Your task to perform on an android device: check android version Image 0: 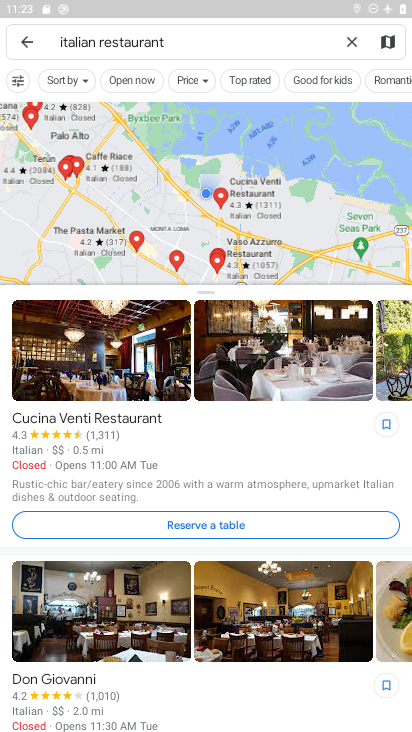
Step 0: press home button
Your task to perform on an android device: check android version Image 1: 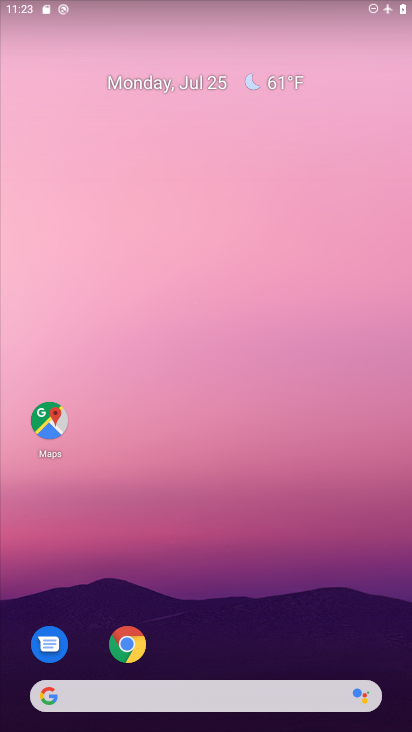
Step 1: drag from (267, 659) to (273, 219)
Your task to perform on an android device: check android version Image 2: 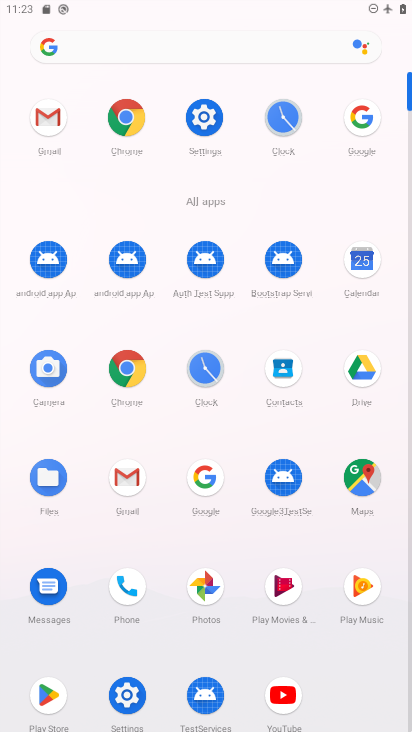
Step 2: click (203, 108)
Your task to perform on an android device: check android version Image 3: 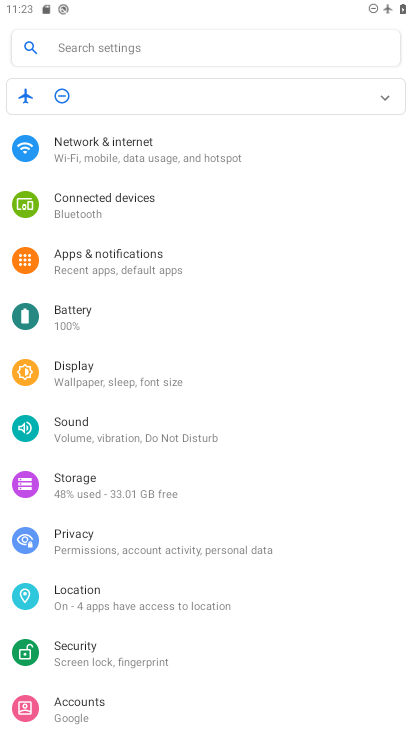
Step 3: drag from (257, 628) to (238, 32)
Your task to perform on an android device: check android version Image 4: 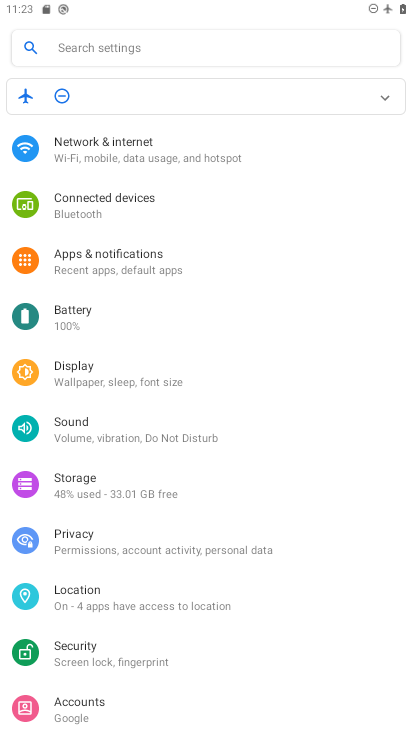
Step 4: drag from (128, 632) to (157, 136)
Your task to perform on an android device: check android version Image 5: 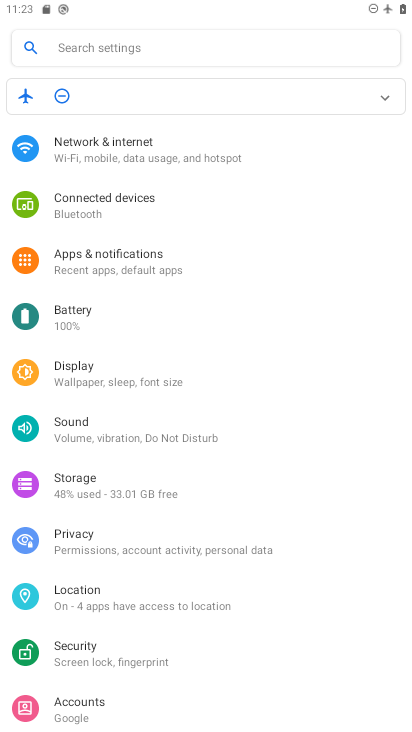
Step 5: drag from (206, 706) to (244, 120)
Your task to perform on an android device: check android version Image 6: 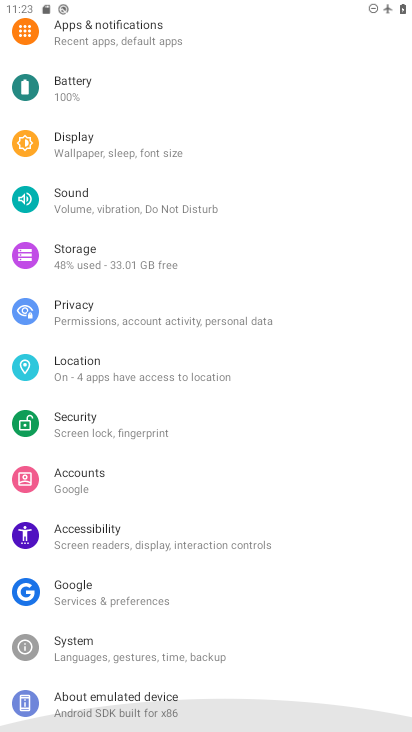
Step 6: drag from (227, 525) to (227, 309)
Your task to perform on an android device: check android version Image 7: 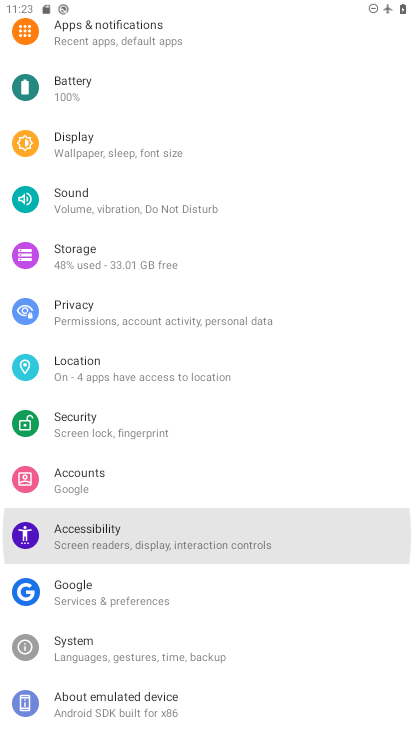
Step 7: drag from (217, 514) to (256, 250)
Your task to perform on an android device: check android version Image 8: 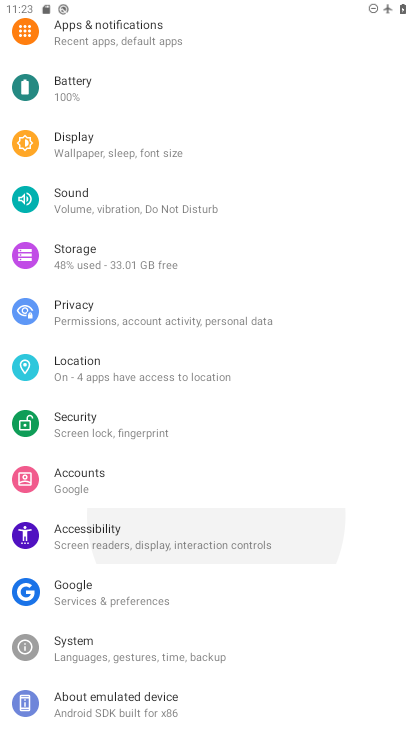
Step 8: drag from (174, 500) to (192, 209)
Your task to perform on an android device: check android version Image 9: 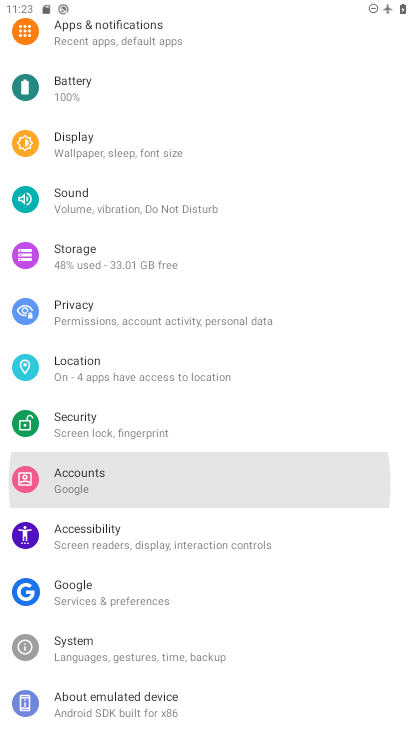
Step 9: drag from (119, 665) to (161, 343)
Your task to perform on an android device: check android version Image 10: 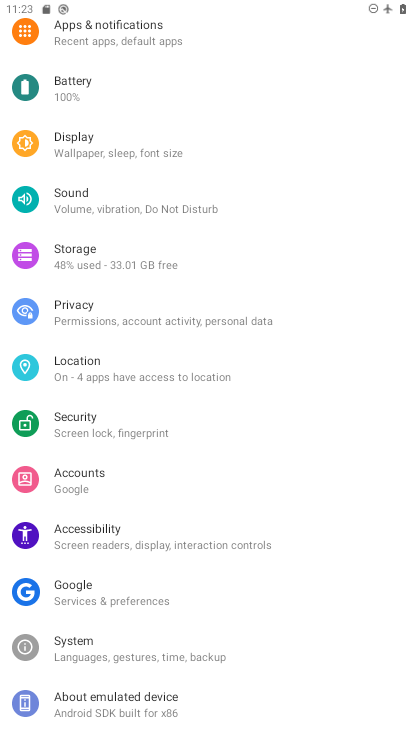
Step 10: click (153, 695)
Your task to perform on an android device: check android version Image 11: 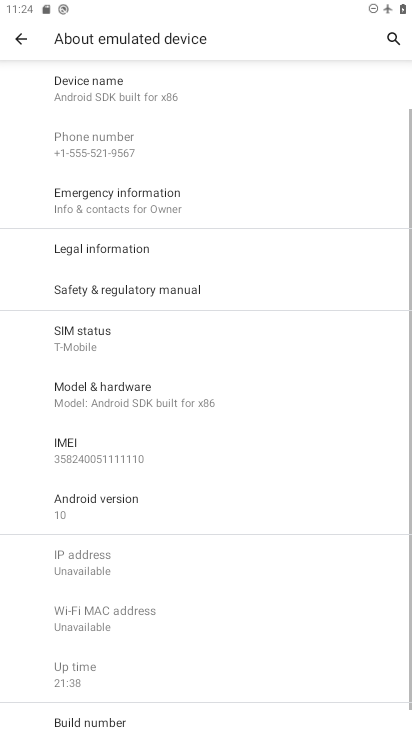
Step 11: click (122, 501)
Your task to perform on an android device: check android version Image 12: 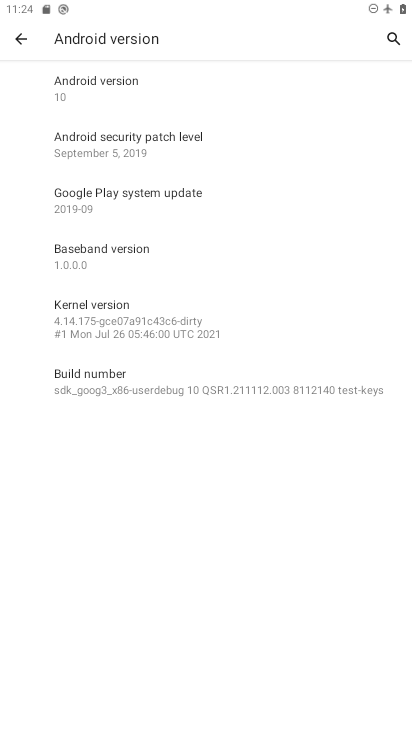
Step 12: task complete